Your task to perform on an android device: Search for 12ft 120W LED tube light on home depot Image 0: 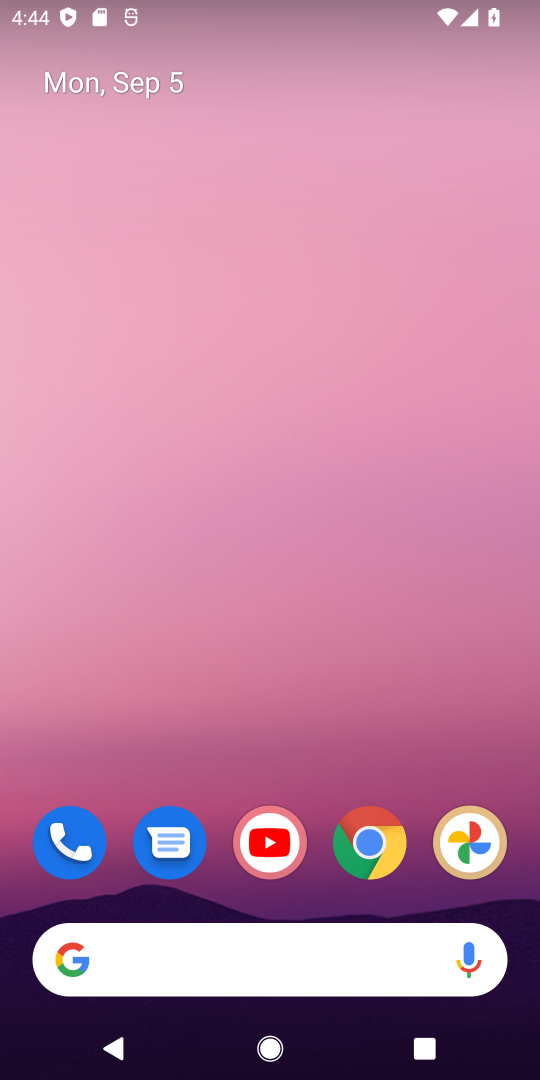
Step 0: click (368, 840)
Your task to perform on an android device: Search for 12ft 120W LED tube light on home depot Image 1: 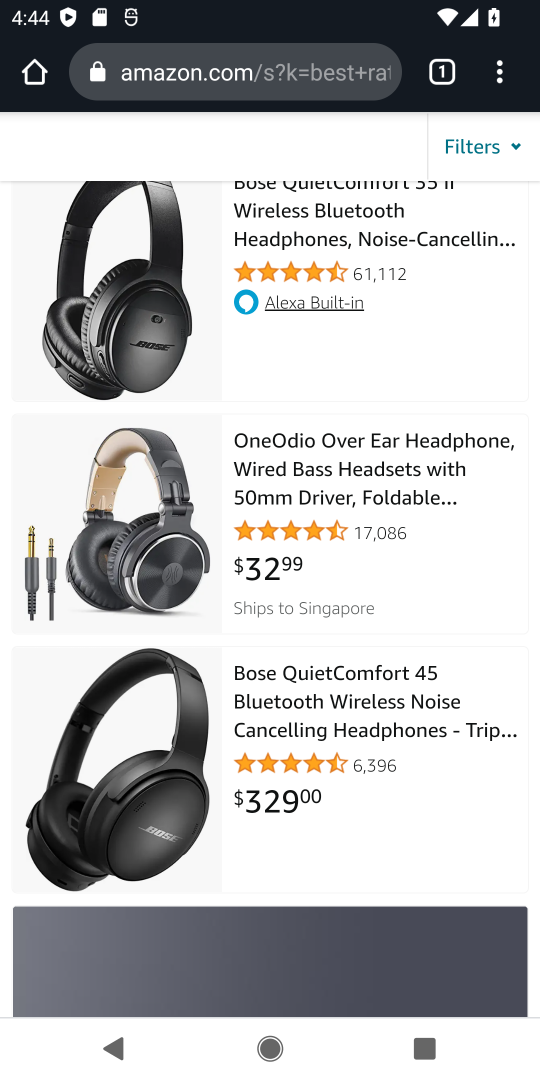
Step 1: click (205, 85)
Your task to perform on an android device: Search for 12ft 120W LED tube light on home depot Image 2: 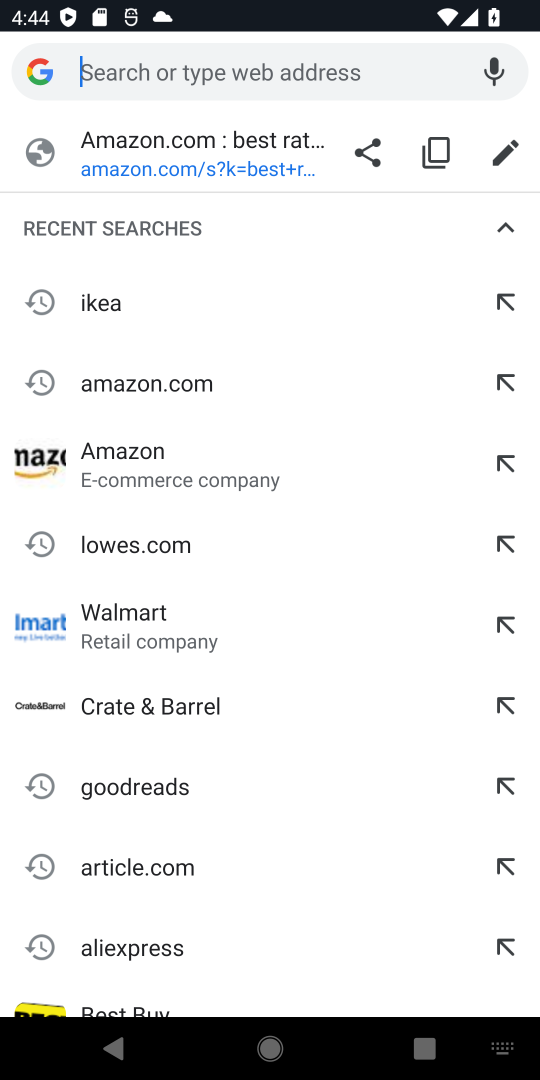
Step 2: type "home depot"
Your task to perform on an android device: Search for 12ft 120W LED tube light on home depot Image 3: 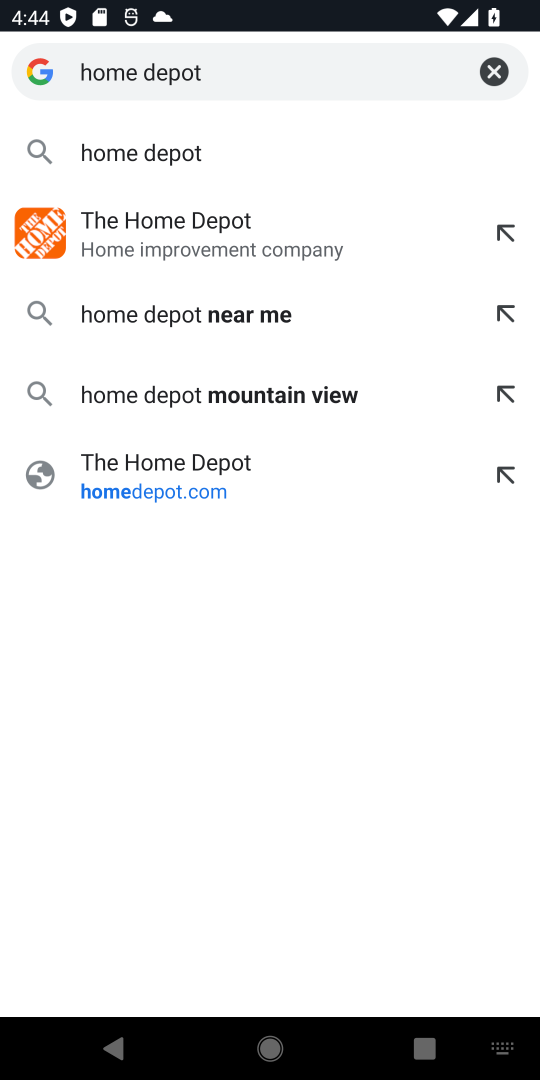
Step 3: click (253, 246)
Your task to perform on an android device: Search for 12ft 120W LED tube light on home depot Image 4: 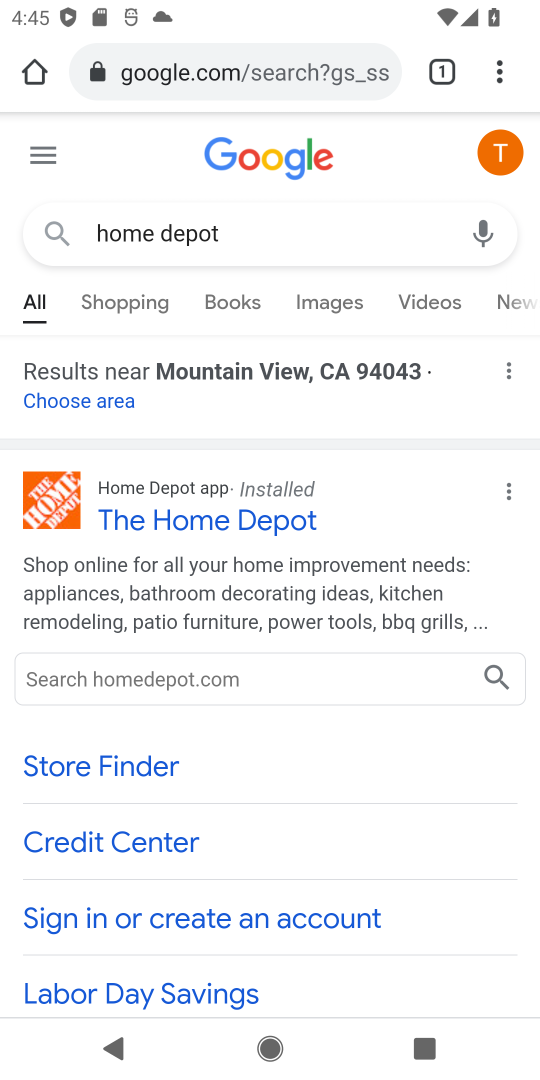
Step 4: drag from (271, 887) to (431, 445)
Your task to perform on an android device: Search for 12ft 120W LED tube light on home depot Image 5: 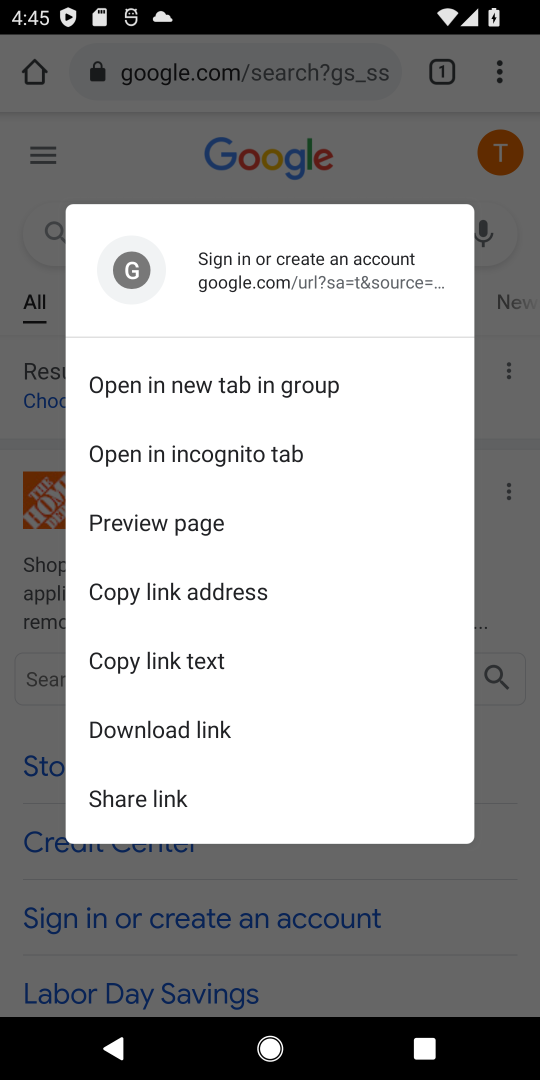
Step 5: click (514, 547)
Your task to perform on an android device: Search for 12ft 120W LED tube light on home depot Image 6: 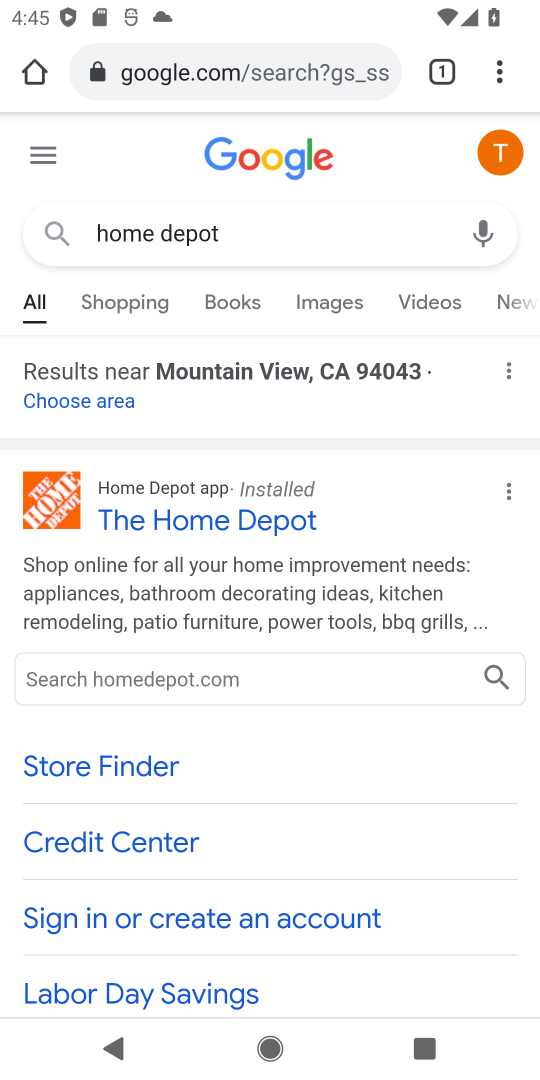
Step 6: drag from (246, 903) to (344, 534)
Your task to perform on an android device: Search for 12ft 120W LED tube light on home depot Image 7: 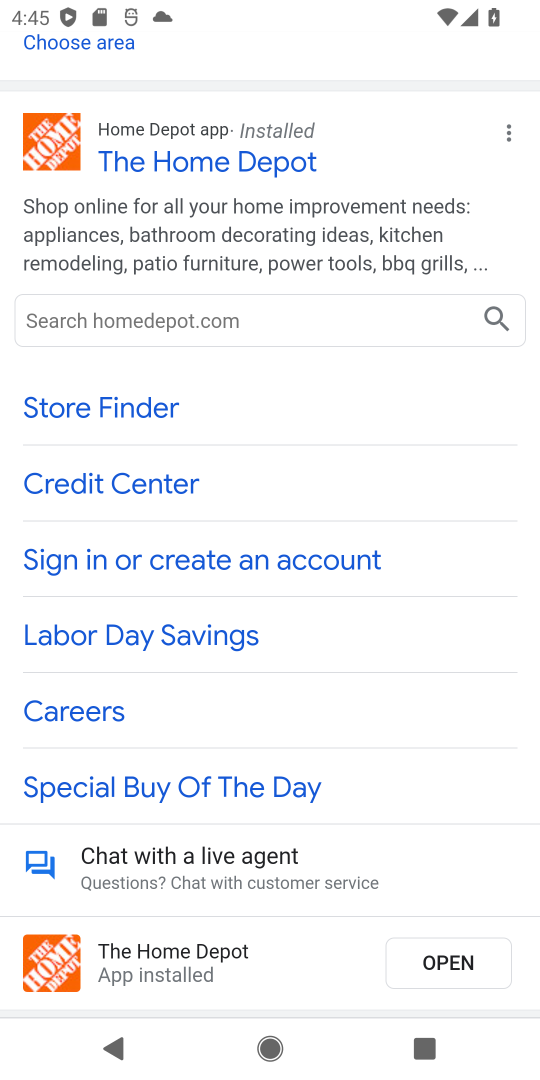
Step 7: drag from (248, 956) to (375, 721)
Your task to perform on an android device: Search for 12ft 120W LED tube light on home depot Image 8: 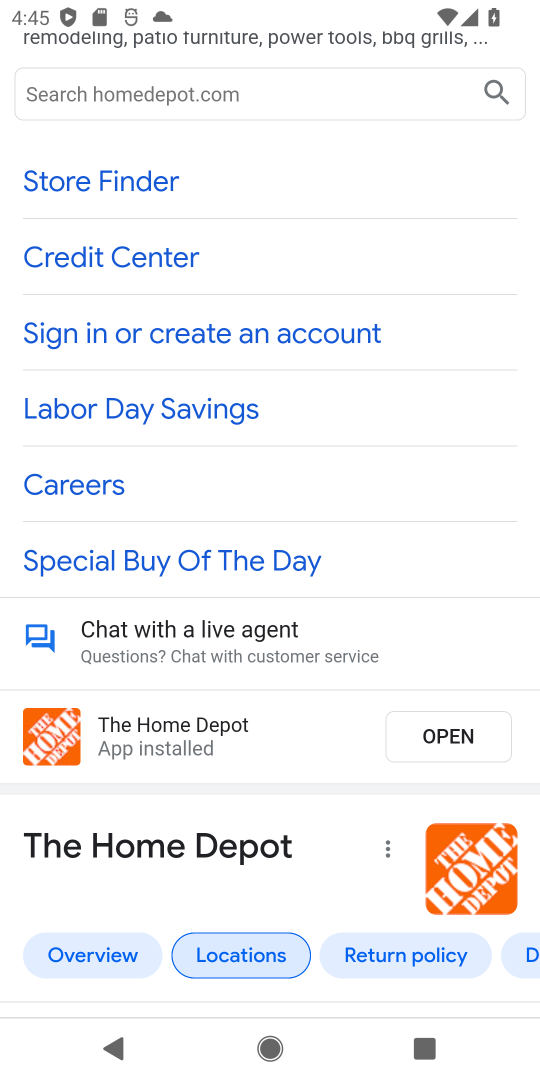
Step 8: drag from (295, 895) to (443, 540)
Your task to perform on an android device: Search for 12ft 120W LED tube light on home depot Image 9: 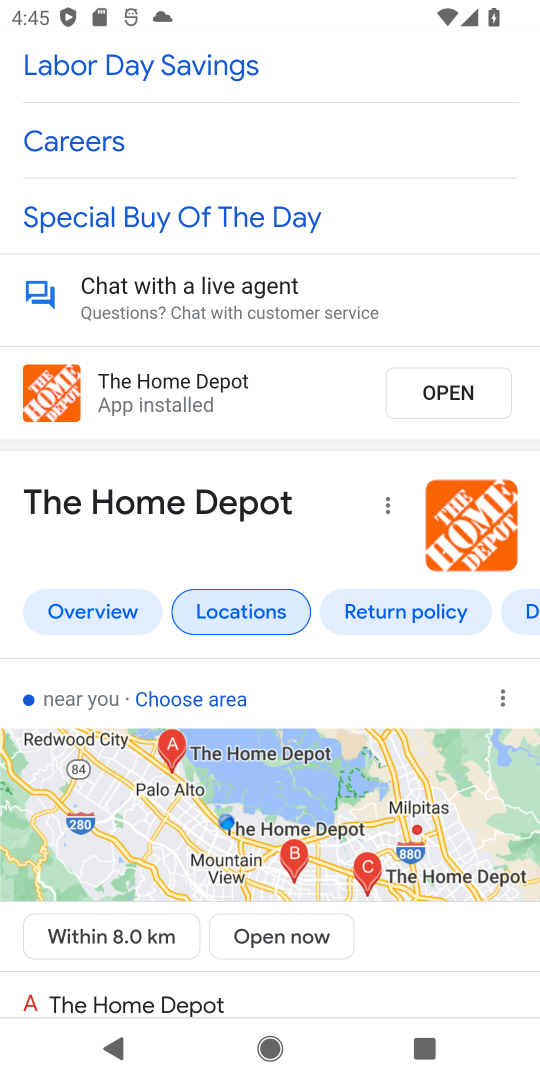
Step 9: drag from (319, 980) to (385, 358)
Your task to perform on an android device: Search for 12ft 120W LED tube light on home depot Image 10: 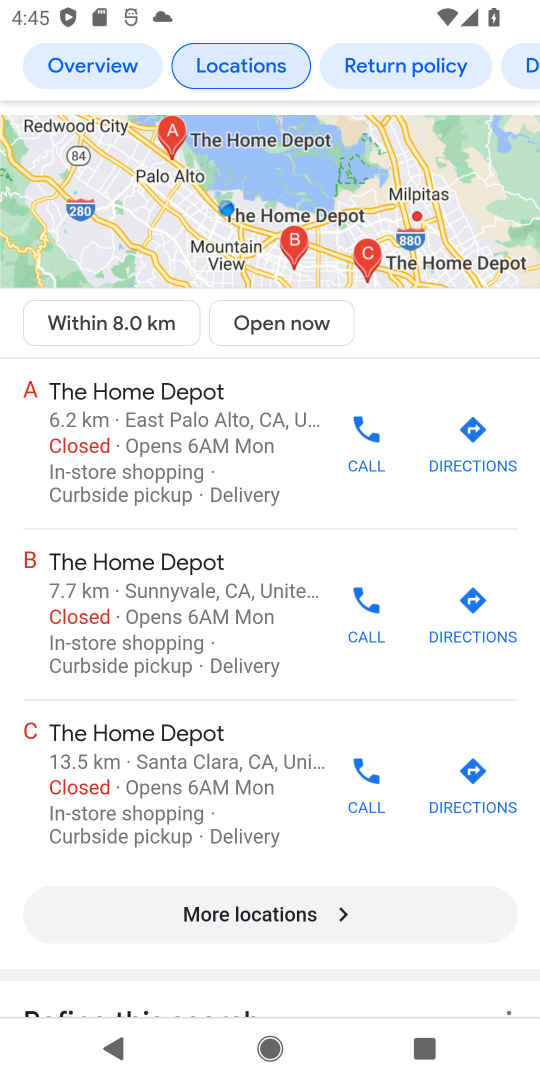
Step 10: drag from (352, 874) to (449, 503)
Your task to perform on an android device: Search for 12ft 120W LED tube light on home depot Image 11: 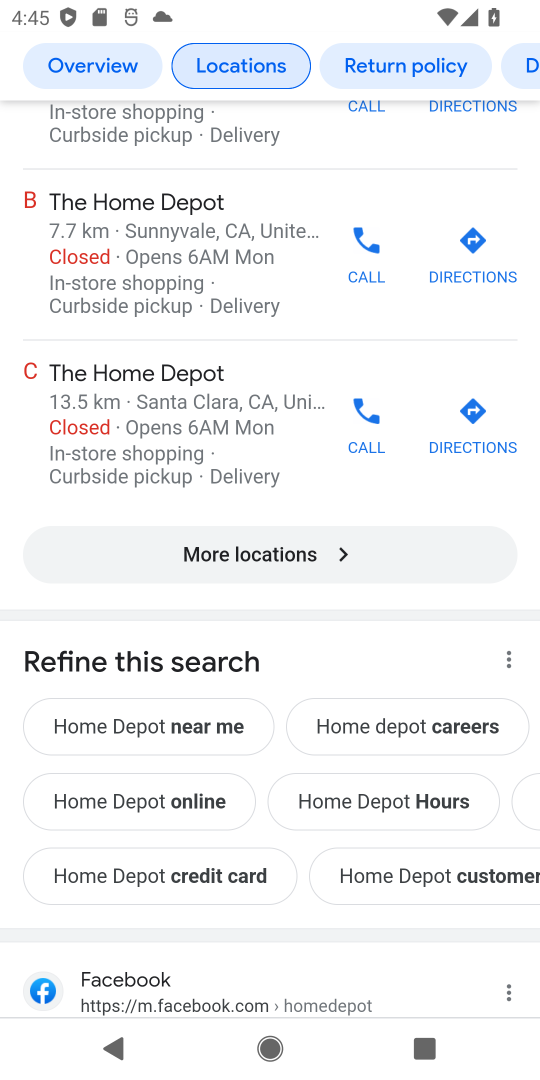
Step 11: drag from (251, 946) to (367, 663)
Your task to perform on an android device: Search for 12ft 120W LED tube light on home depot Image 12: 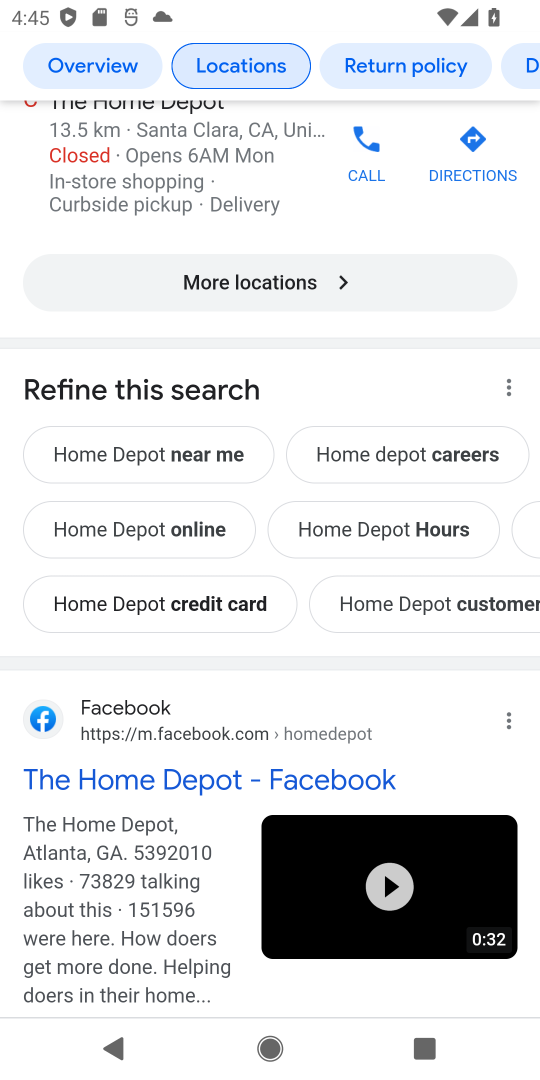
Step 12: drag from (217, 838) to (327, 477)
Your task to perform on an android device: Search for 12ft 120W LED tube light on home depot Image 13: 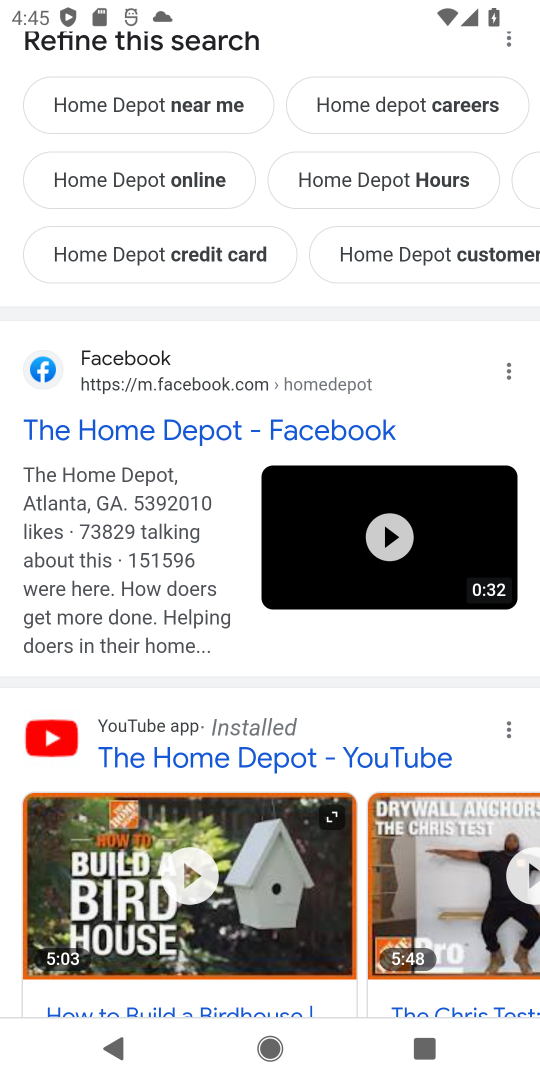
Step 13: drag from (255, 881) to (326, 500)
Your task to perform on an android device: Search for 12ft 120W LED tube light on home depot Image 14: 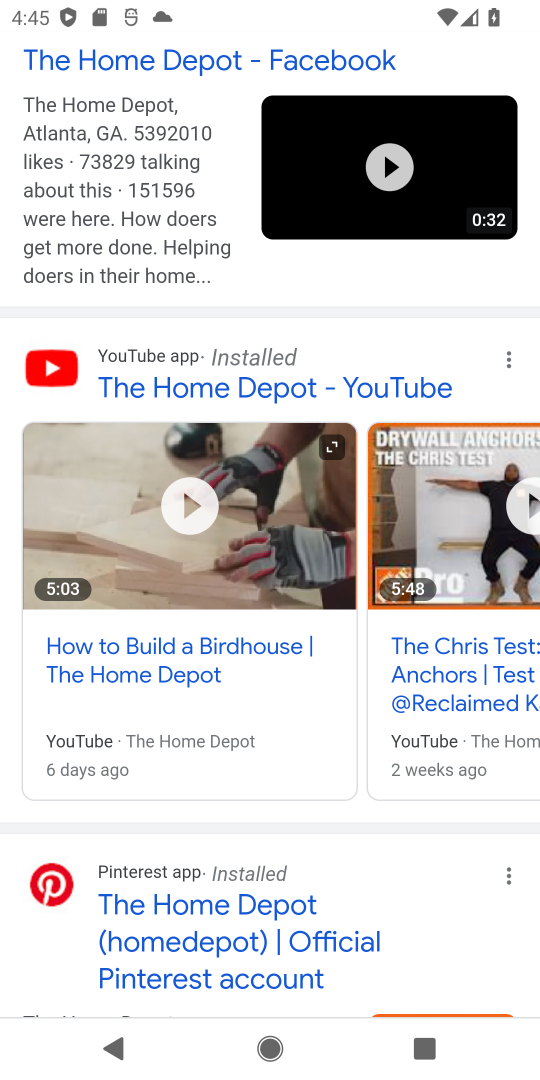
Step 14: drag from (348, 933) to (501, 699)
Your task to perform on an android device: Search for 12ft 120W LED tube light on home depot Image 15: 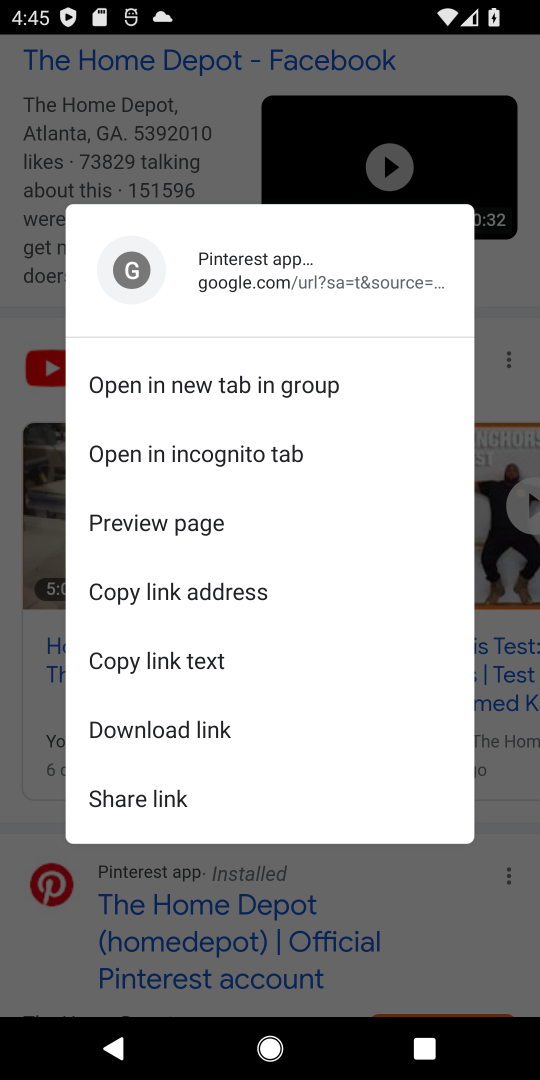
Step 15: click (538, 261)
Your task to perform on an android device: Search for 12ft 120W LED tube light on home depot Image 16: 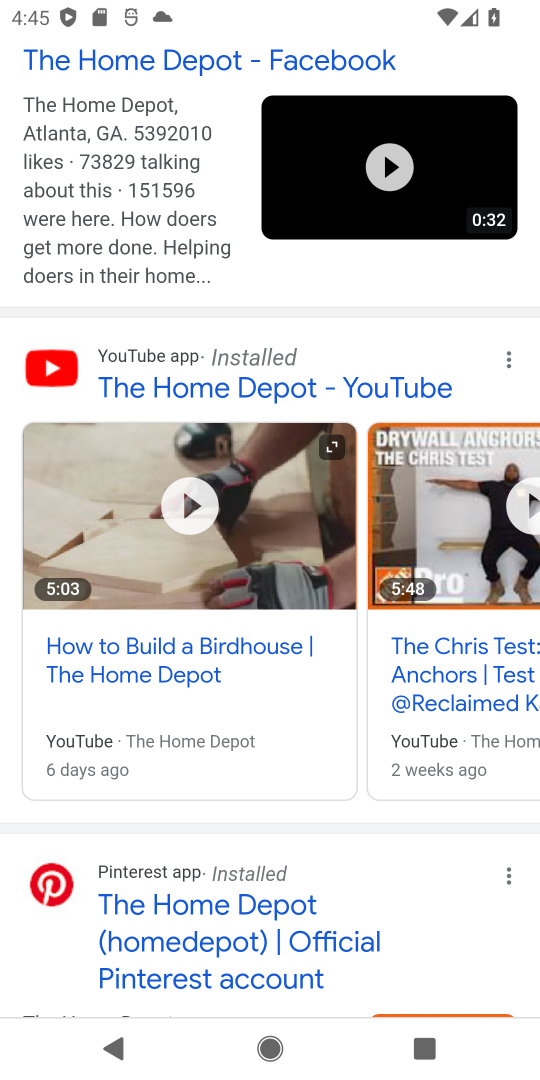
Step 16: drag from (274, 281) to (222, 773)
Your task to perform on an android device: Search for 12ft 120W LED tube light on home depot Image 17: 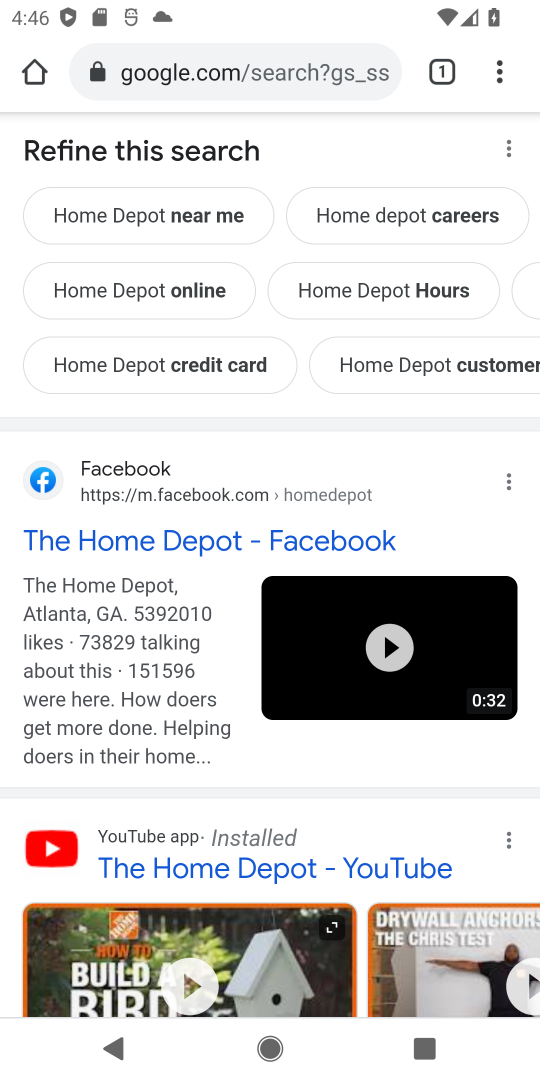
Step 17: drag from (315, 421) to (344, 728)
Your task to perform on an android device: Search for 12ft 120W LED tube light on home depot Image 18: 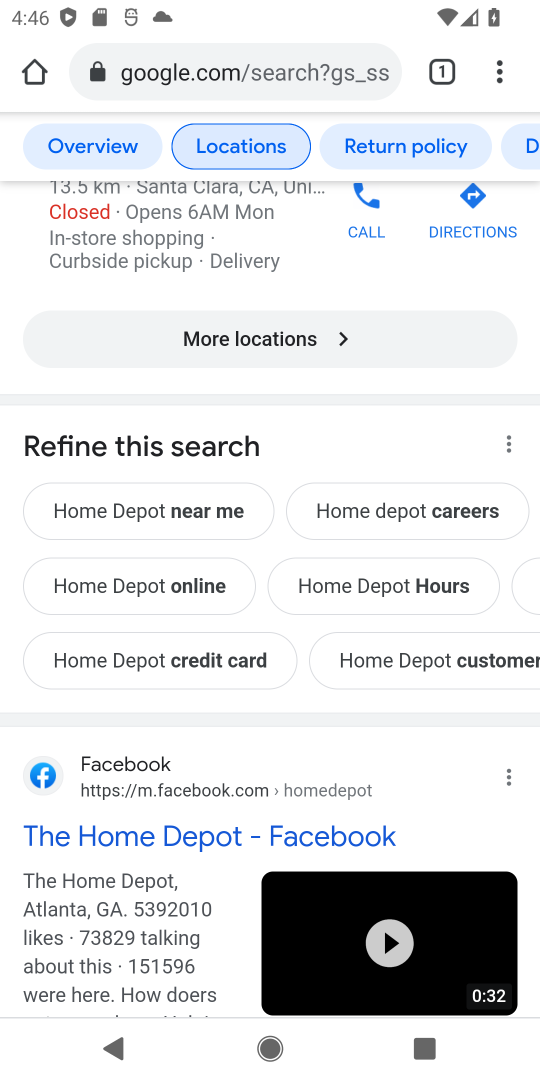
Step 18: drag from (334, 270) to (423, 637)
Your task to perform on an android device: Search for 12ft 120W LED tube light on home depot Image 19: 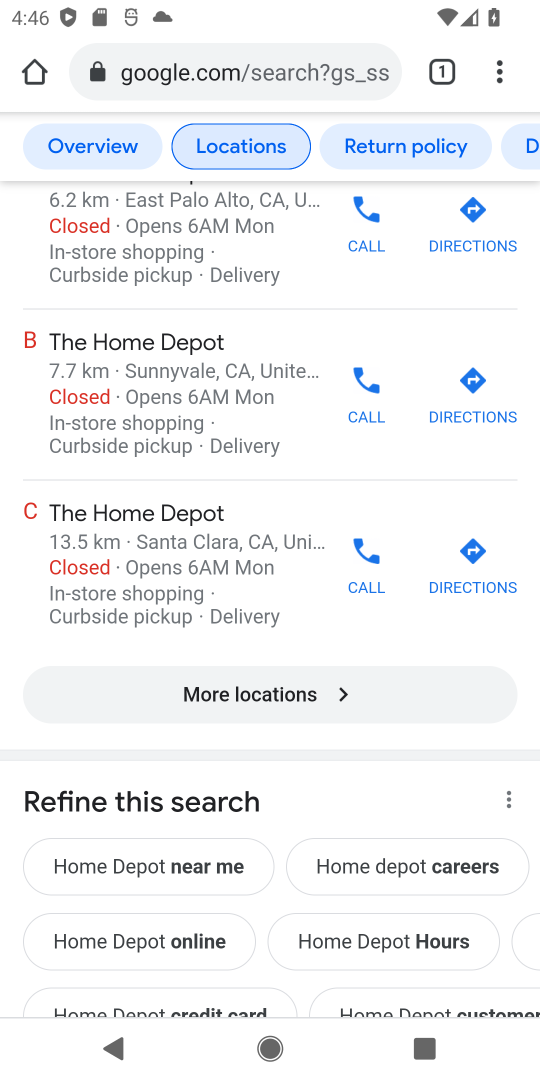
Step 19: drag from (328, 259) to (399, 602)
Your task to perform on an android device: Search for 12ft 120W LED tube light on home depot Image 20: 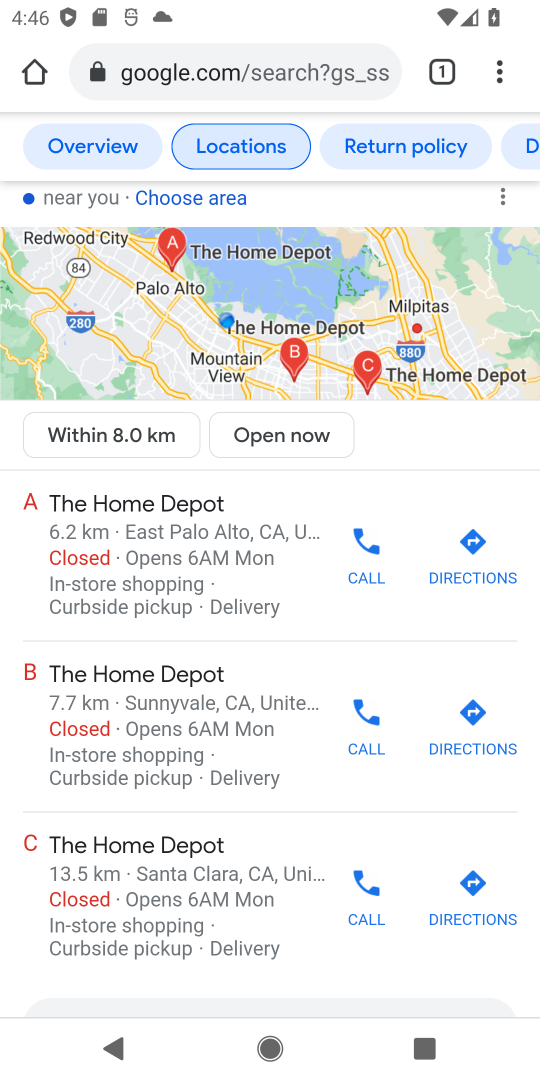
Step 20: drag from (343, 194) to (389, 693)
Your task to perform on an android device: Search for 12ft 120W LED tube light on home depot Image 21: 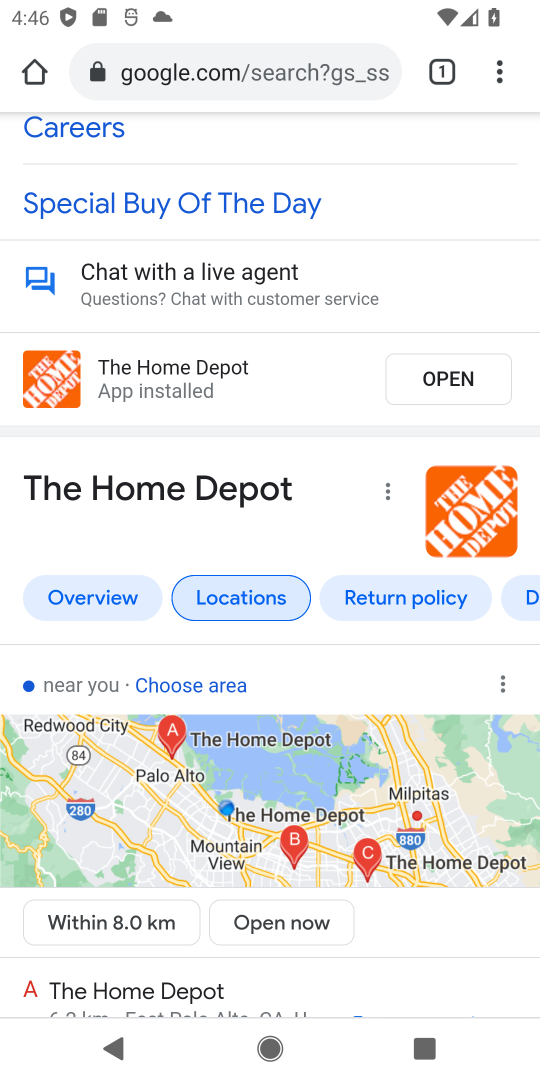
Step 21: drag from (237, 507) to (298, 820)
Your task to perform on an android device: Search for 12ft 120W LED tube light on home depot Image 22: 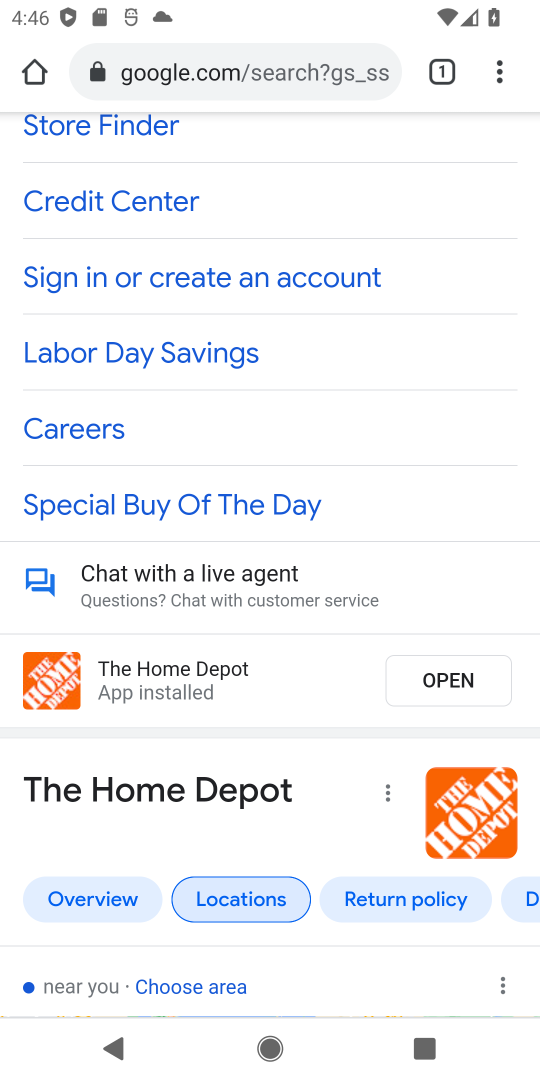
Step 22: drag from (281, 272) to (291, 724)
Your task to perform on an android device: Search for 12ft 120W LED tube light on home depot Image 23: 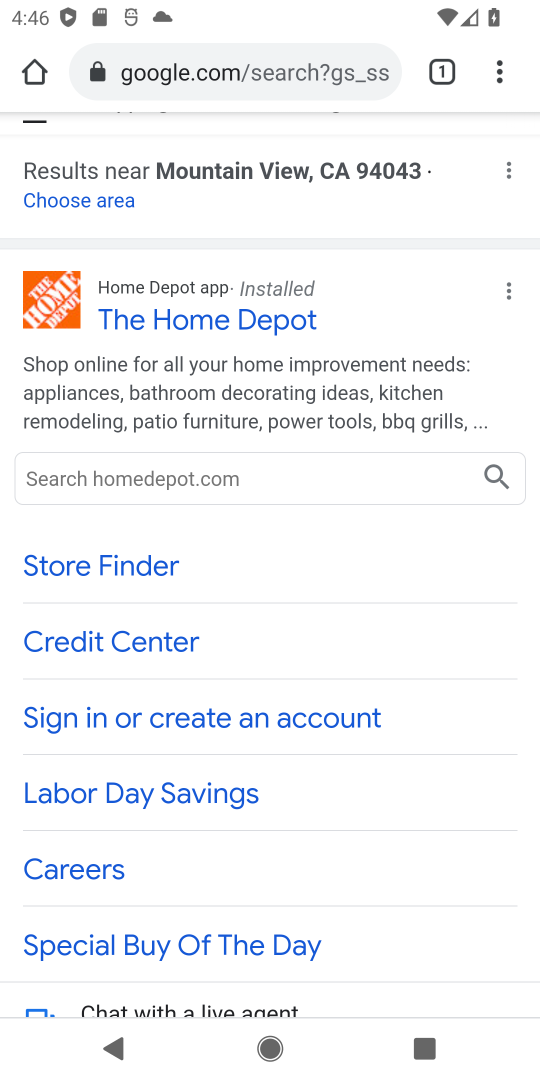
Step 23: click (265, 311)
Your task to perform on an android device: Search for 12ft 120W LED tube light on home depot Image 24: 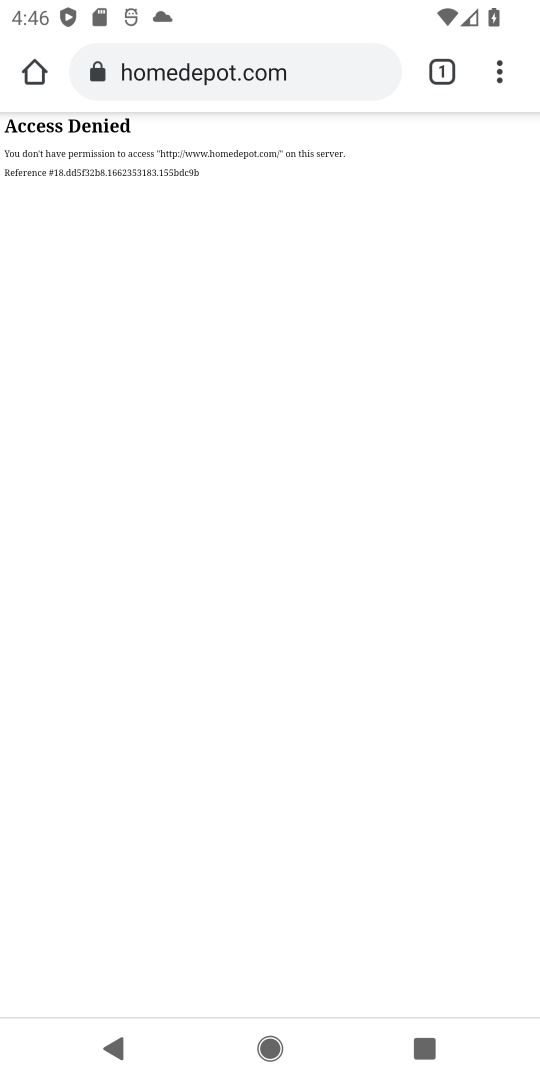
Step 24: task complete